Your task to perform on an android device: Open network settings Image 0: 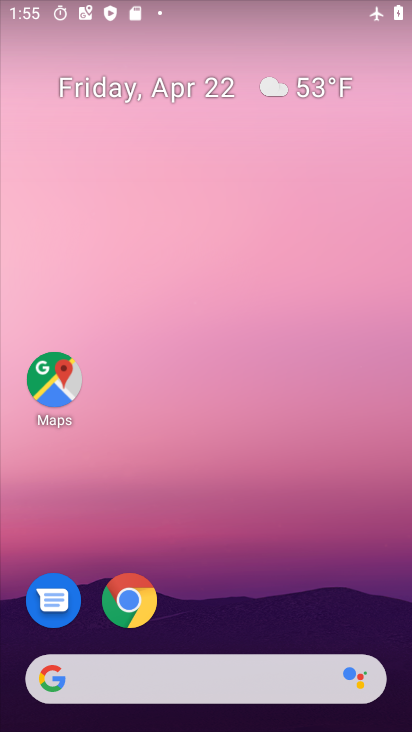
Step 0: drag from (218, 719) to (213, 229)
Your task to perform on an android device: Open network settings Image 1: 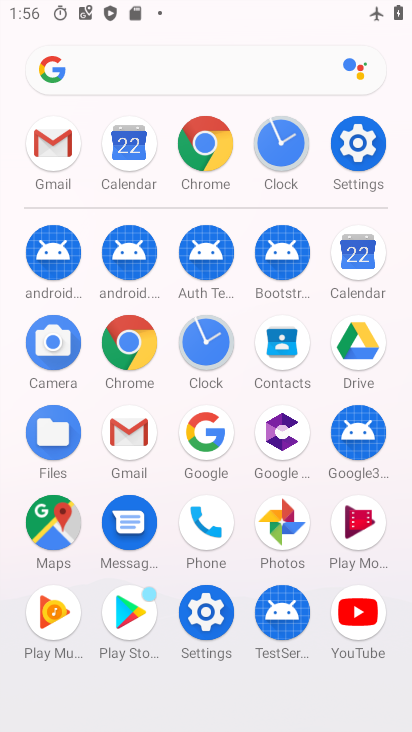
Step 1: click (361, 148)
Your task to perform on an android device: Open network settings Image 2: 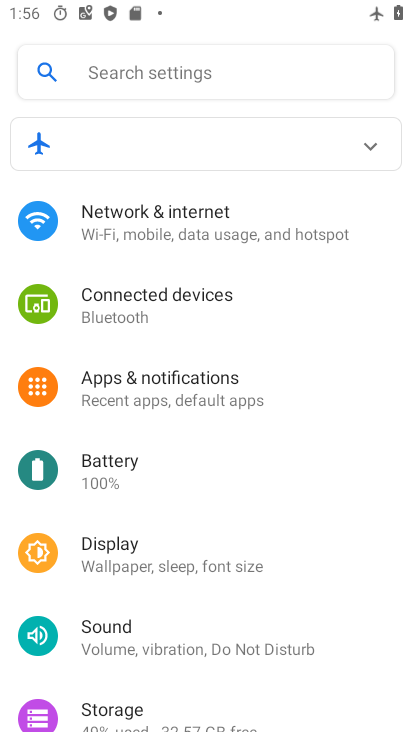
Step 2: click (155, 224)
Your task to perform on an android device: Open network settings Image 3: 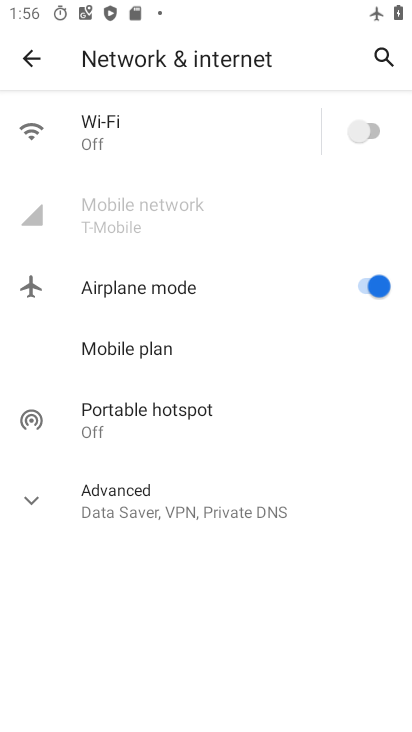
Step 3: task complete